Your task to perform on an android device: Open Yahoo.com Image 0: 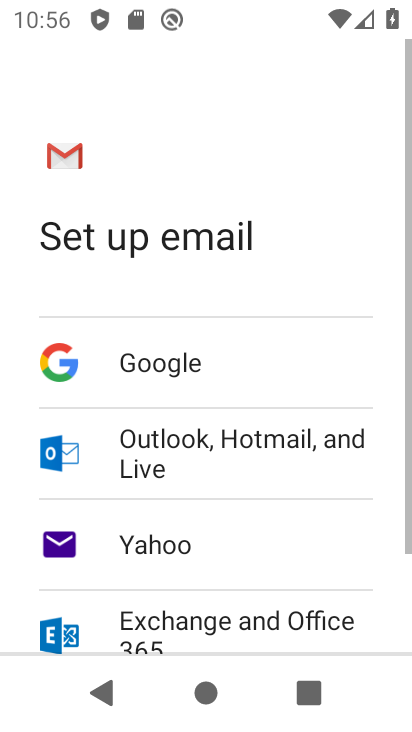
Step 0: press home button
Your task to perform on an android device: Open Yahoo.com Image 1: 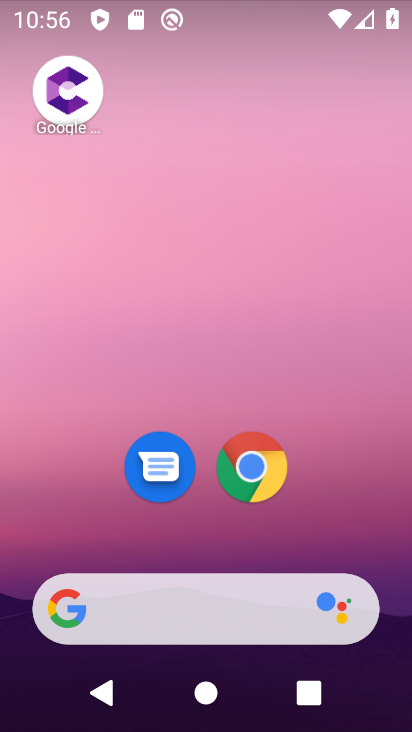
Step 1: click (246, 454)
Your task to perform on an android device: Open Yahoo.com Image 2: 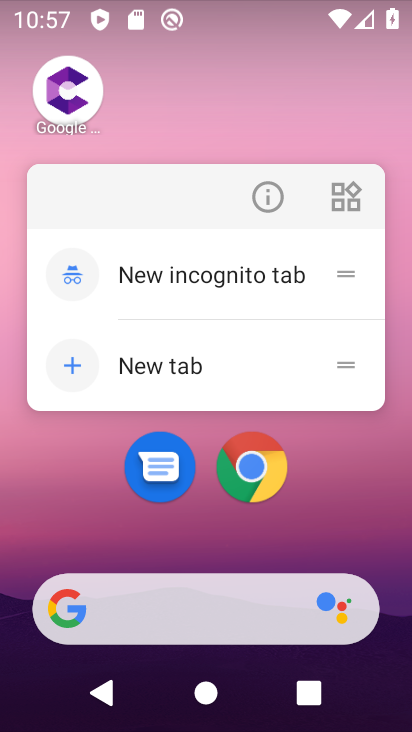
Step 2: click (261, 477)
Your task to perform on an android device: Open Yahoo.com Image 3: 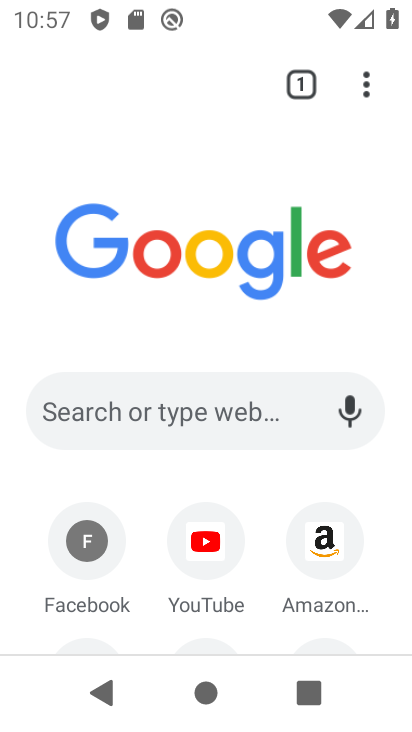
Step 3: drag from (267, 550) to (295, 268)
Your task to perform on an android device: Open Yahoo.com Image 4: 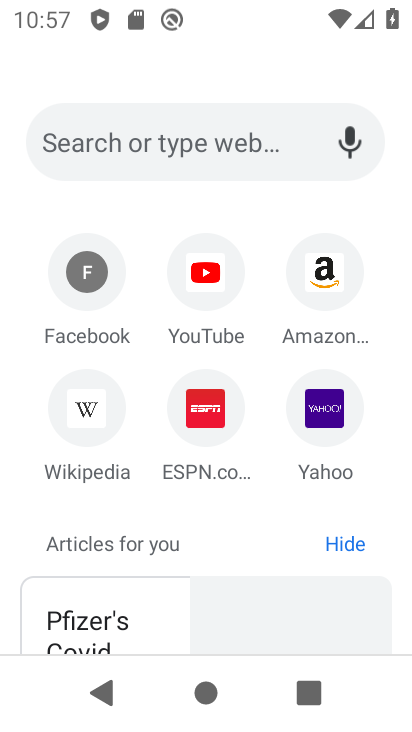
Step 4: drag from (300, 198) to (305, 150)
Your task to perform on an android device: Open Yahoo.com Image 5: 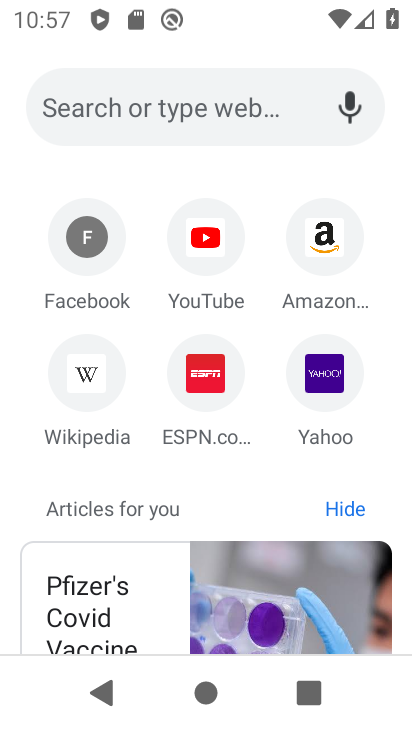
Step 5: click (319, 372)
Your task to perform on an android device: Open Yahoo.com Image 6: 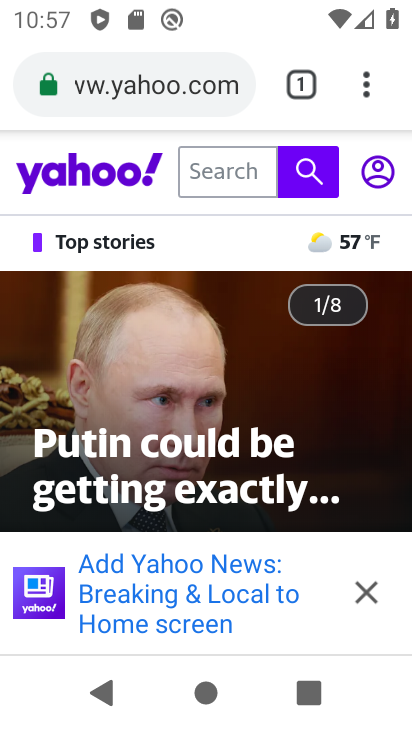
Step 6: task complete